Your task to perform on an android device: turn notification dots off Image 0: 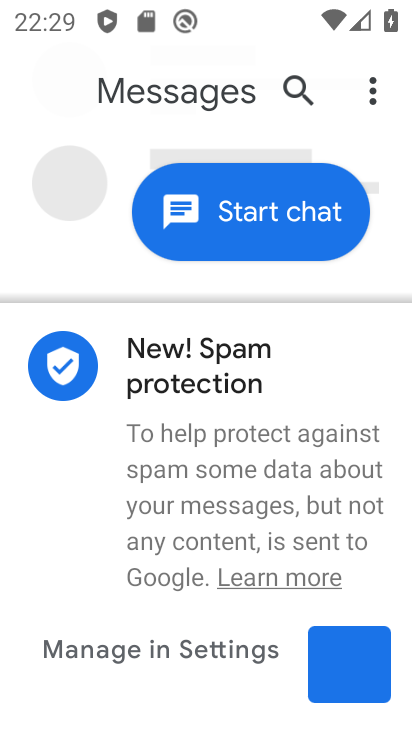
Step 0: press home button
Your task to perform on an android device: turn notification dots off Image 1: 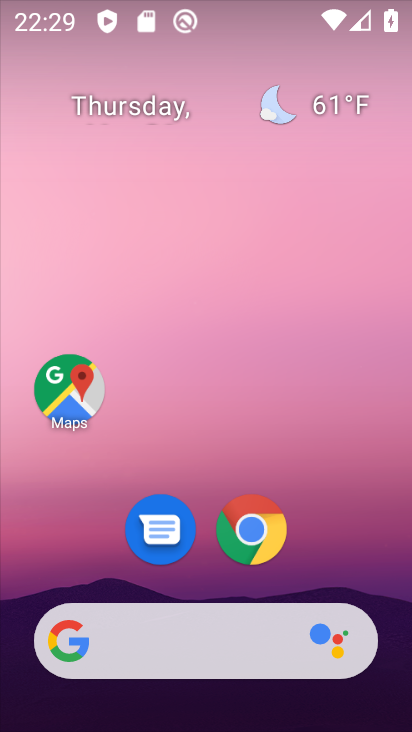
Step 1: drag from (355, 561) to (402, 13)
Your task to perform on an android device: turn notification dots off Image 2: 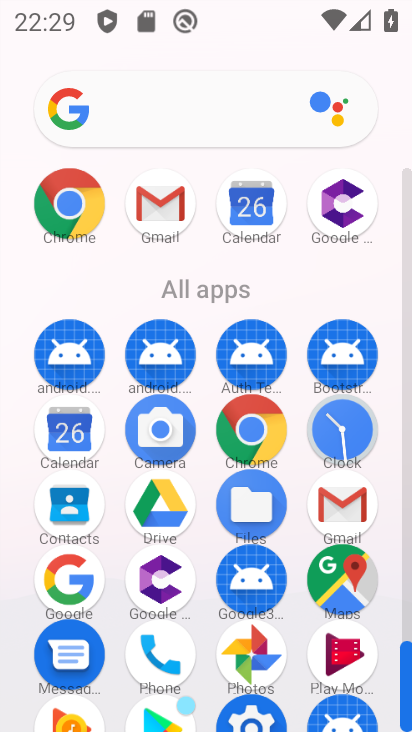
Step 2: click (267, 727)
Your task to perform on an android device: turn notification dots off Image 3: 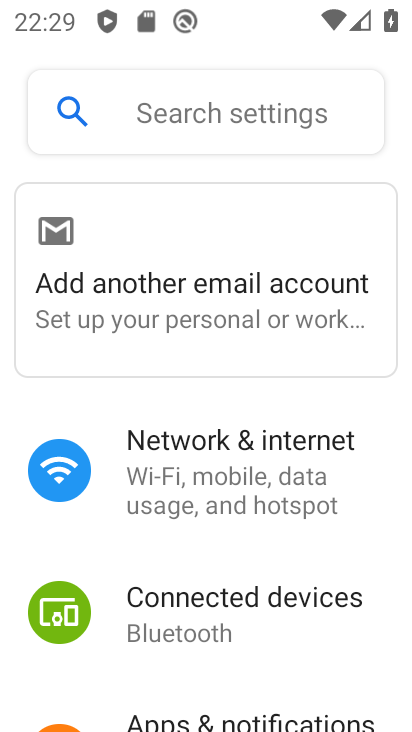
Step 3: click (202, 526)
Your task to perform on an android device: turn notification dots off Image 4: 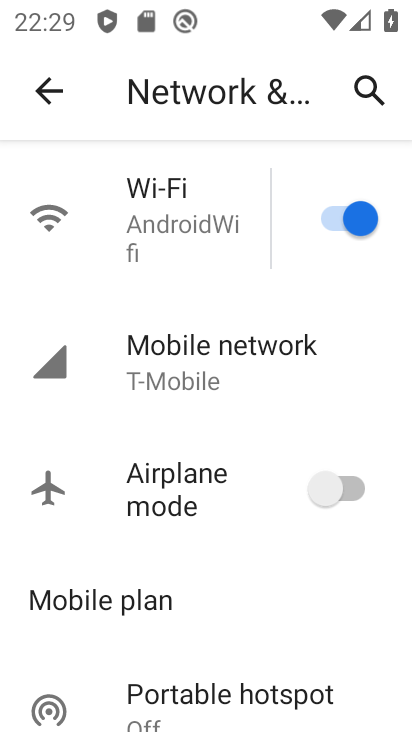
Step 4: click (50, 95)
Your task to perform on an android device: turn notification dots off Image 5: 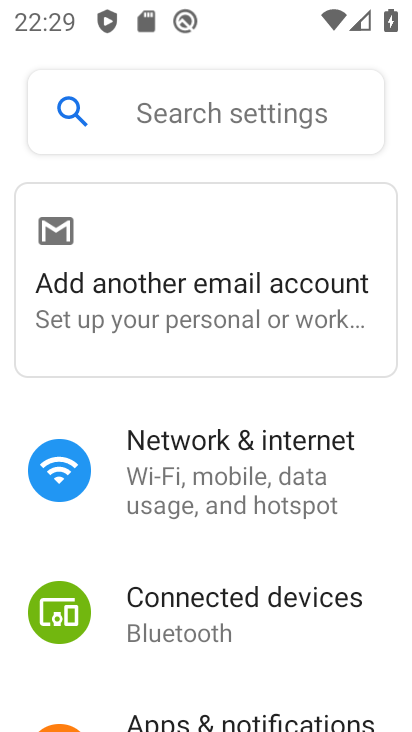
Step 5: click (226, 714)
Your task to perform on an android device: turn notification dots off Image 6: 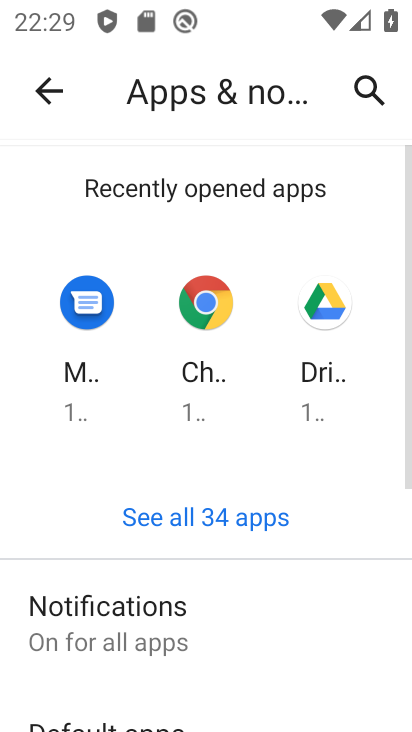
Step 6: click (234, 676)
Your task to perform on an android device: turn notification dots off Image 7: 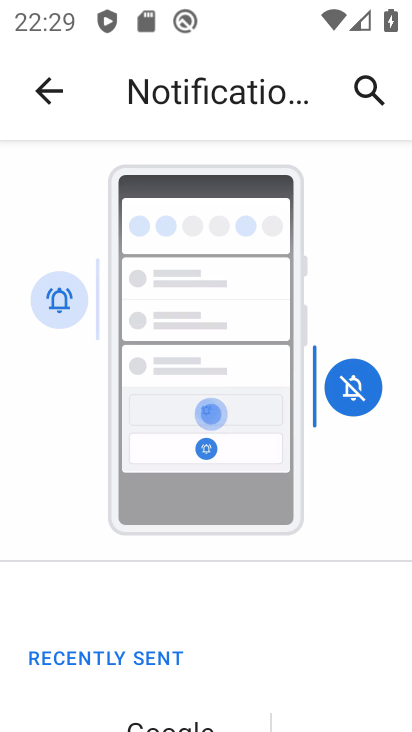
Step 7: drag from (234, 676) to (265, 462)
Your task to perform on an android device: turn notification dots off Image 8: 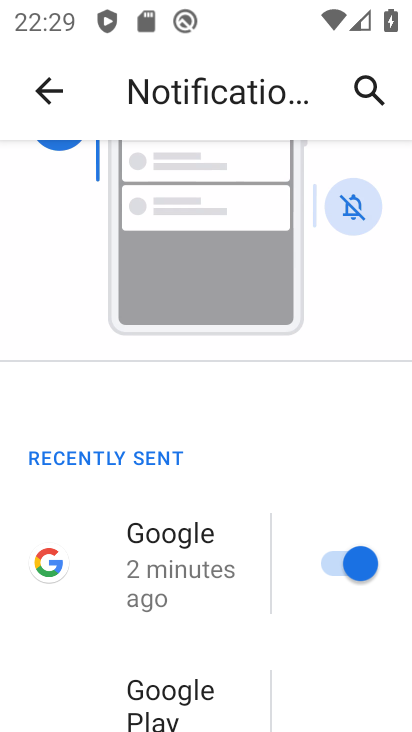
Step 8: drag from (144, 659) to (171, 108)
Your task to perform on an android device: turn notification dots off Image 9: 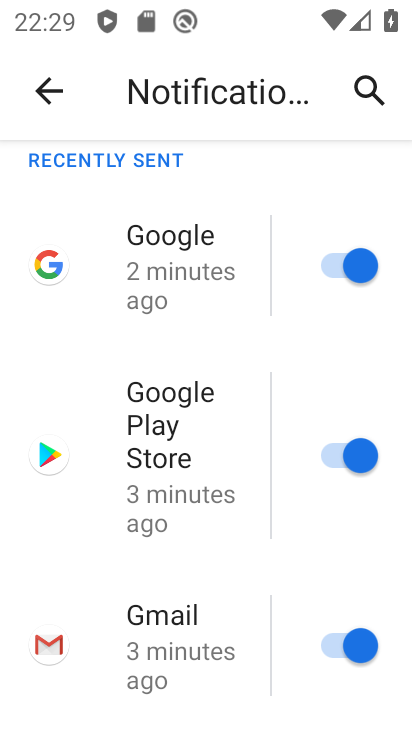
Step 9: drag from (143, 666) to (196, 98)
Your task to perform on an android device: turn notification dots off Image 10: 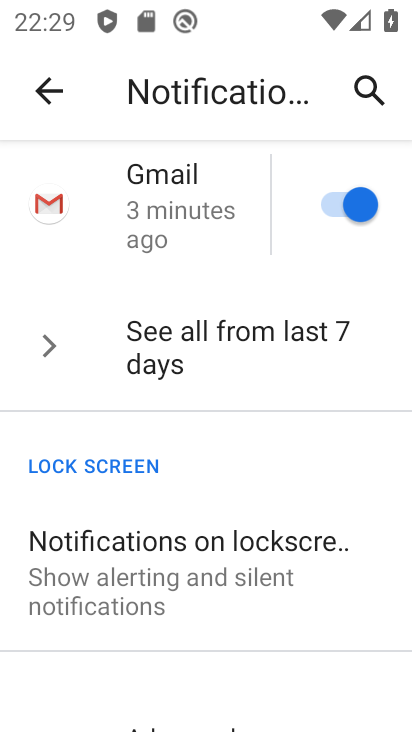
Step 10: drag from (173, 575) to (213, 95)
Your task to perform on an android device: turn notification dots off Image 11: 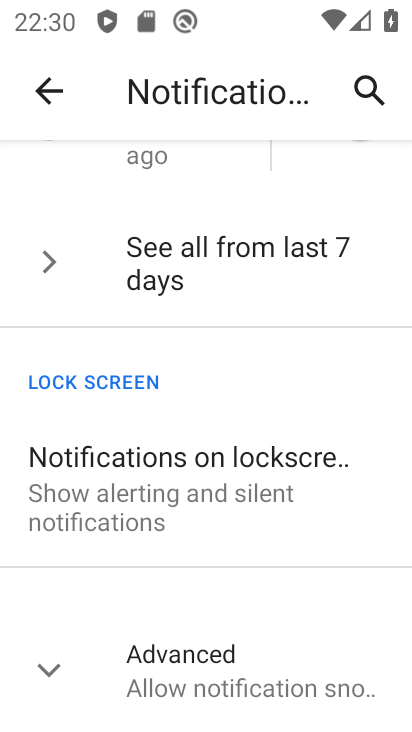
Step 11: click (128, 666)
Your task to perform on an android device: turn notification dots off Image 12: 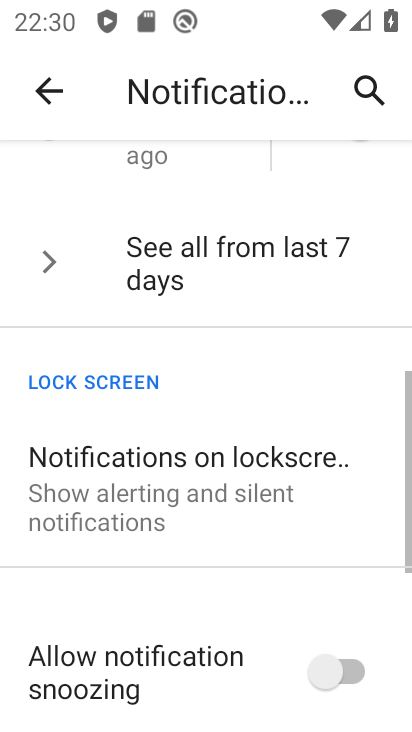
Step 12: drag from (214, 620) to (247, 380)
Your task to perform on an android device: turn notification dots off Image 13: 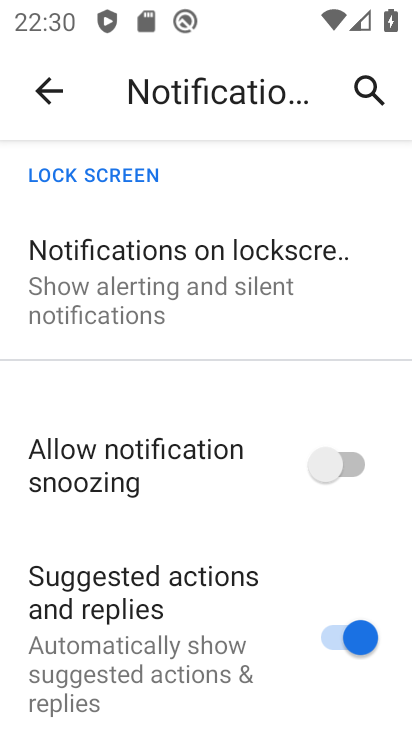
Step 13: drag from (152, 676) to (198, 256)
Your task to perform on an android device: turn notification dots off Image 14: 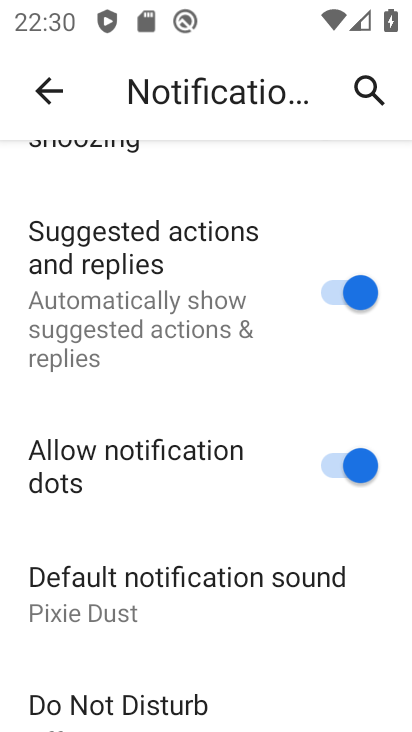
Step 14: click (225, 721)
Your task to perform on an android device: turn notification dots off Image 15: 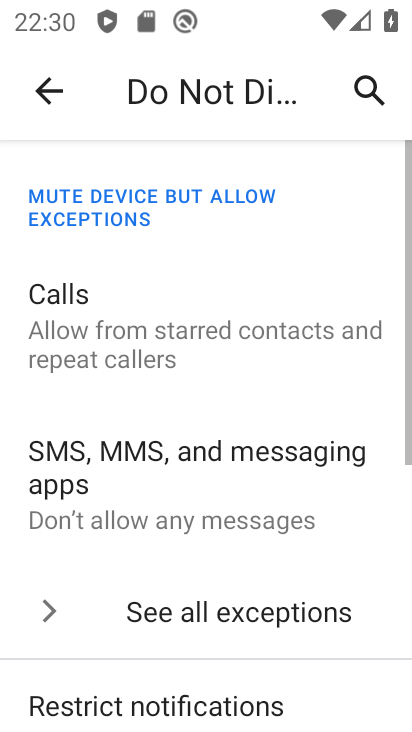
Step 15: click (331, 488)
Your task to perform on an android device: turn notification dots off Image 16: 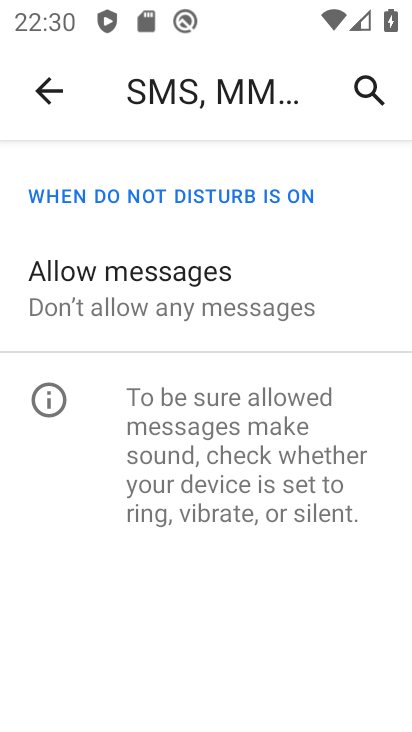
Step 16: click (49, 89)
Your task to perform on an android device: turn notification dots off Image 17: 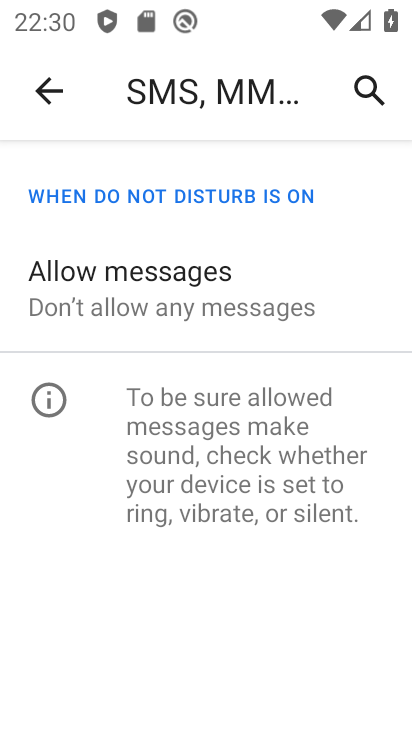
Step 17: click (49, 89)
Your task to perform on an android device: turn notification dots off Image 18: 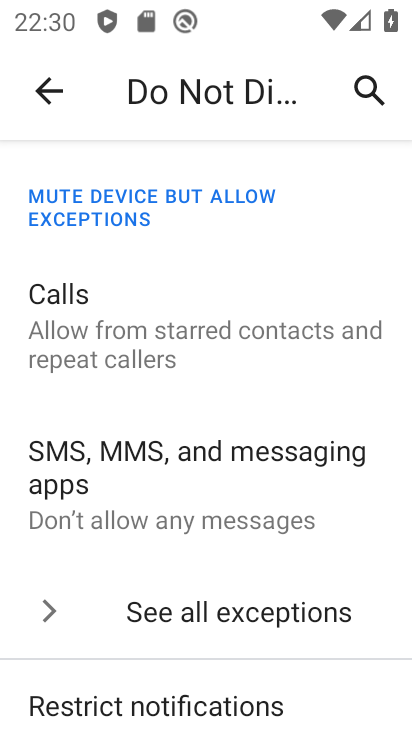
Step 18: click (49, 107)
Your task to perform on an android device: turn notification dots off Image 19: 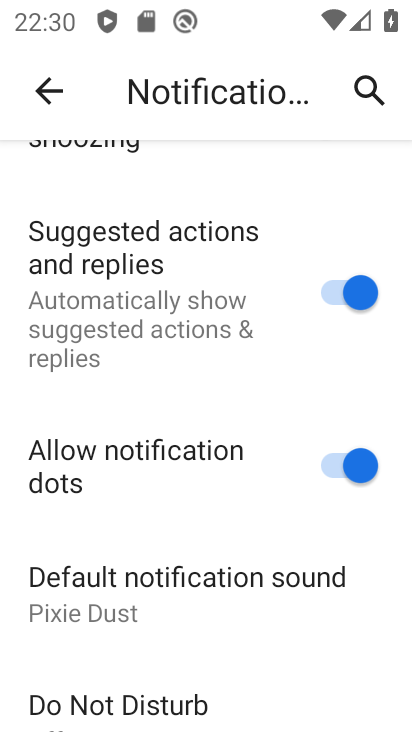
Step 19: click (330, 479)
Your task to perform on an android device: turn notification dots off Image 20: 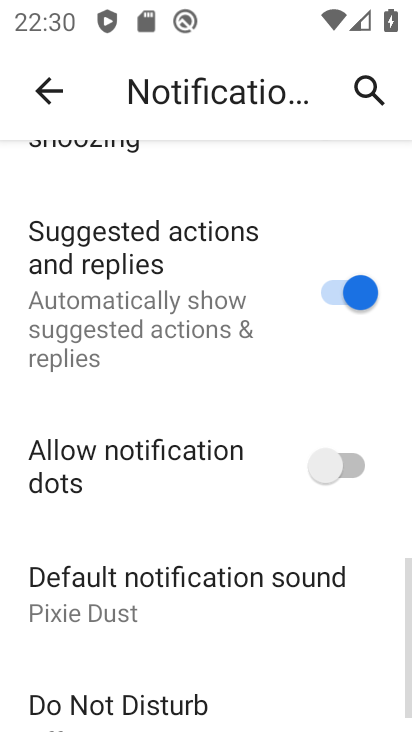
Step 20: task complete